Your task to perform on an android device: Search for a new nail polish Image 0: 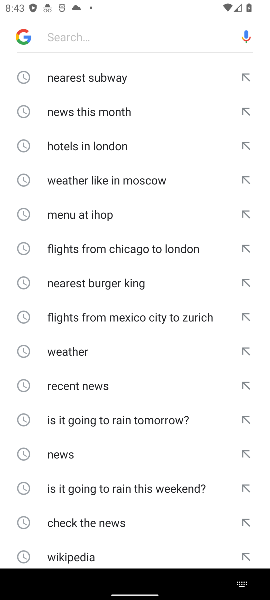
Step 0: press home button
Your task to perform on an android device: Search for a new nail polish Image 1: 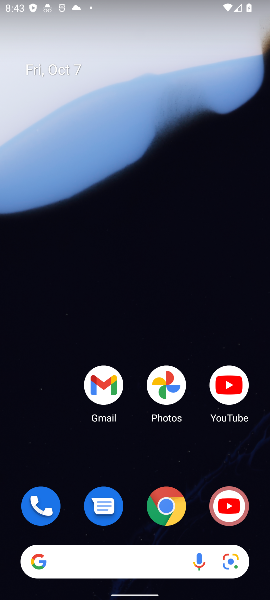
Step 1: click (166, 500)
Your task to perform on an android device: Search for a new nail polish Image 2: 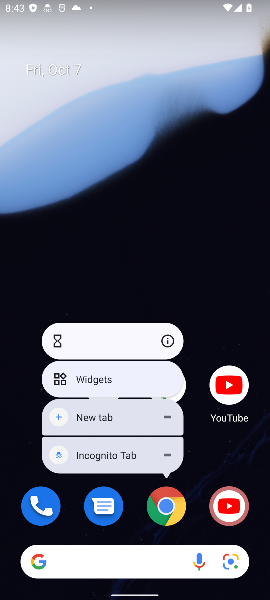
Step 2: click (166, 500)
Your task to perform on an android device: Search for a new nail polish Image 3: 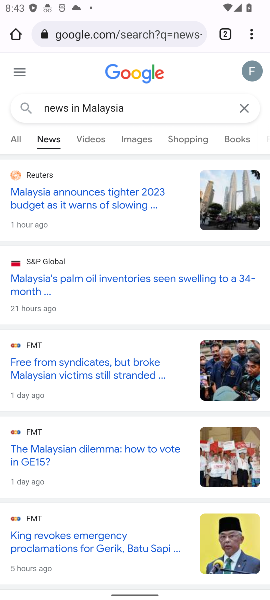
Step 3: click (151, 37)
Your task to perform on an android device: Search for a new nail polish Image 4: 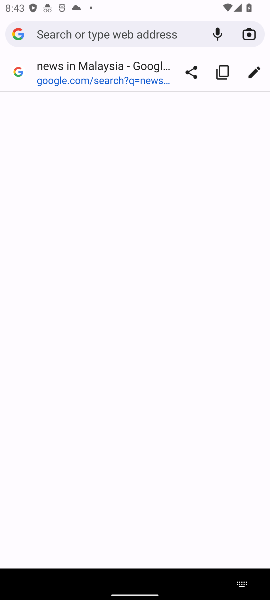
Step 4: type "new nail polish"
Your task to perform on an android device: Search for a new nail polish Image 5: 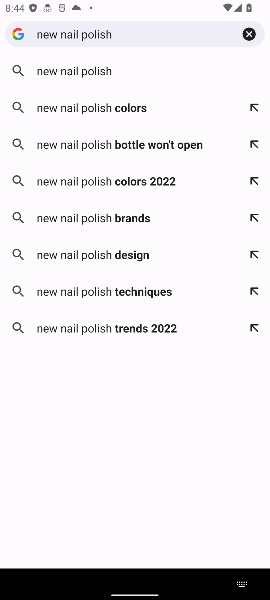
Step 5: click (53, 76)
Your task to perform on an android device: Search for a new nail polish Image 6: 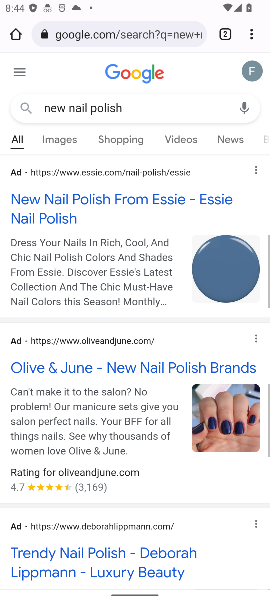
Step 6: task complete